Your task to perform on an android device: turn vacation reply on in the gmail app Image 0: 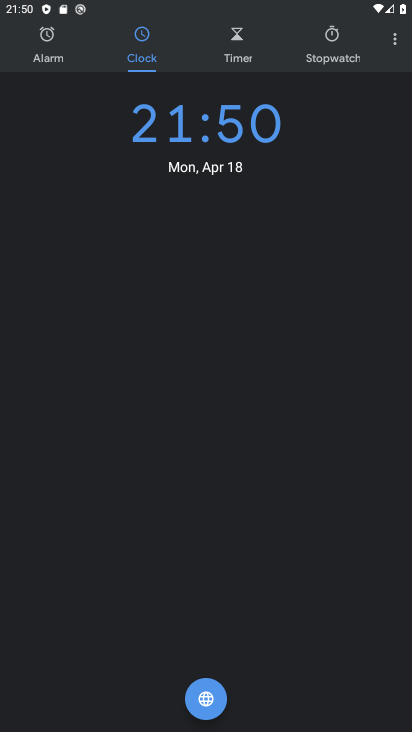
Step 0: press home button
Your task to perform on an android device: turn vacation reply on in the gmail app Image 1: 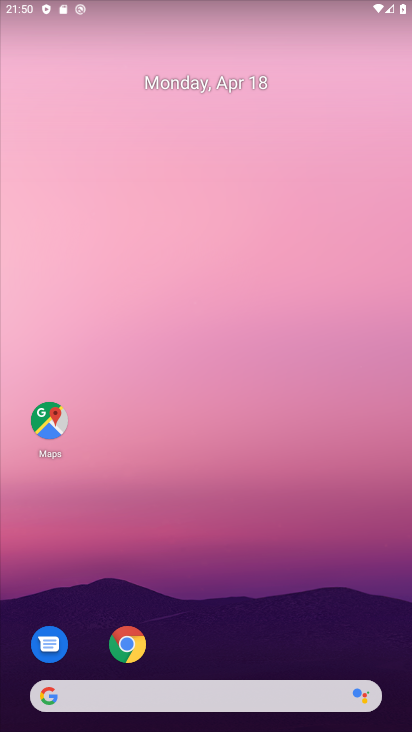
Step 1: drag from (205, 652) to (311, 21)
Your task to perform on an android device: turn vacation reply on in the gmail app Image 2: 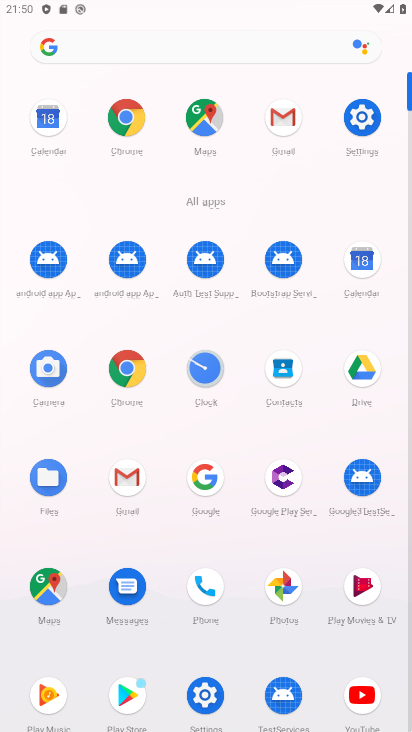
Step 2: click (134, 482)
Your task to perform on an android device: turn vacation reply on in the gmail app Image 3: 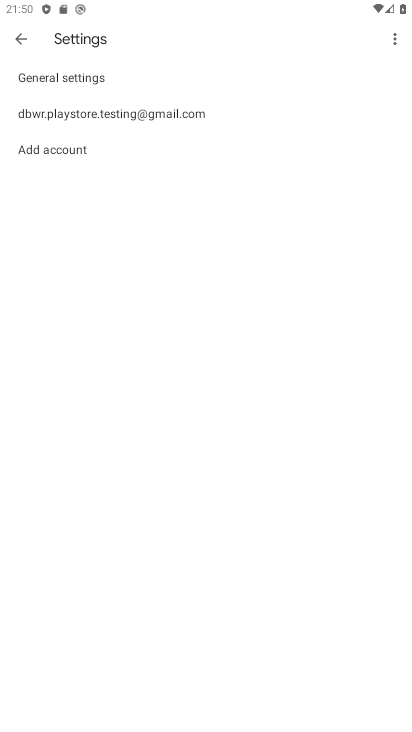
Step 3: click (44, 113)
Your task to perform on an android device: turn vacation reply on in the gmail app Image 4: 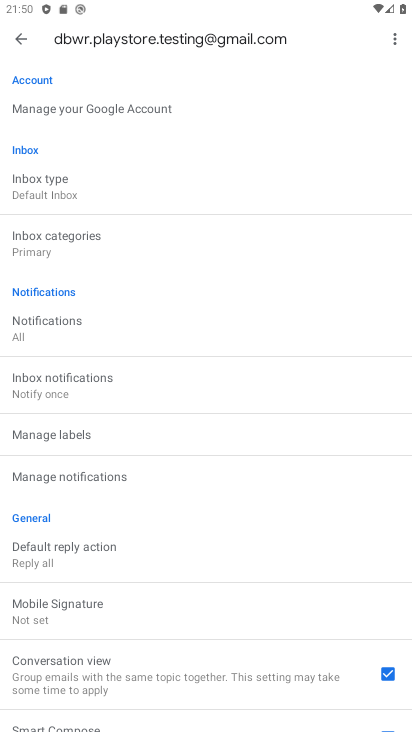
Step 4: drag from (106, 590) to (239, 47)
Your task to perform on an android device: turn vacation reply on in the gmail app Image 5: 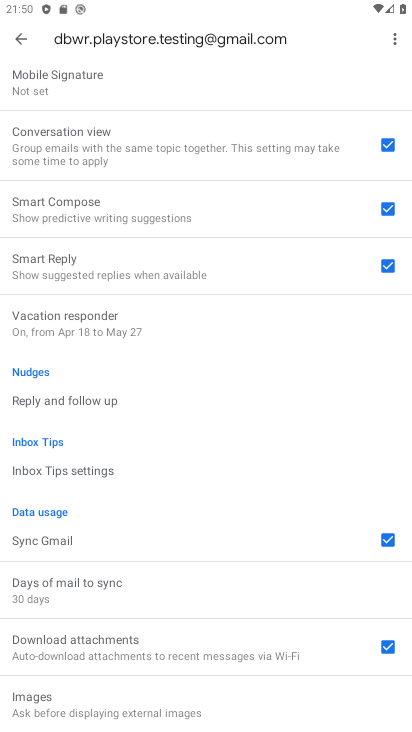
Step 5: click (111, 335)
Your task to perform on an android device: turn vacation reply on in the gmail app Image 6: 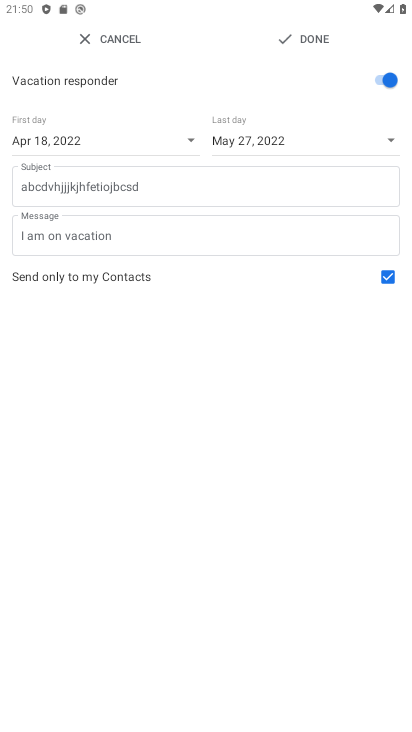
Step 6: task complete